Your task to perform on an android device: add a label to a message in the gmail app Image 0: 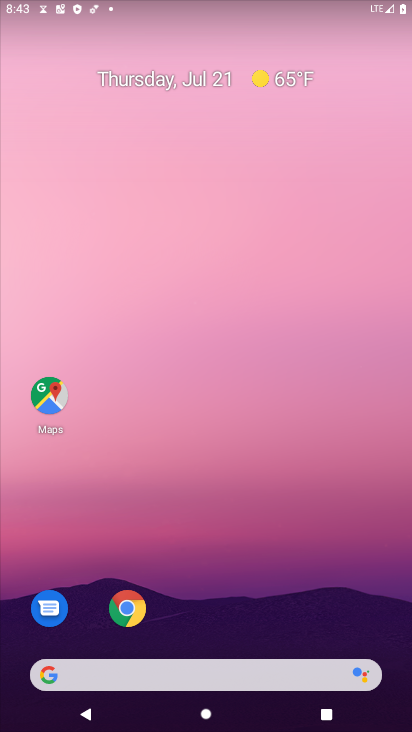
Step 0: drag from (189, 680) to (298, 214)
Your task to perform on an android device: add a label to a message in the gmail app Image 1: 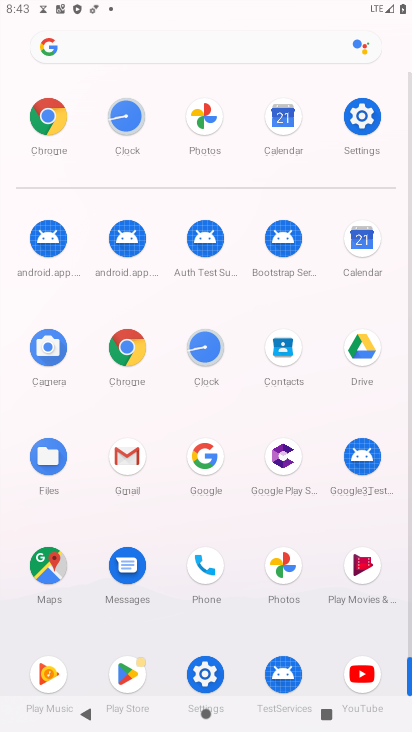
Step 1: click (125, 454)
Your task to perform on an android device: add a label to a message in the gmail app Image 2: 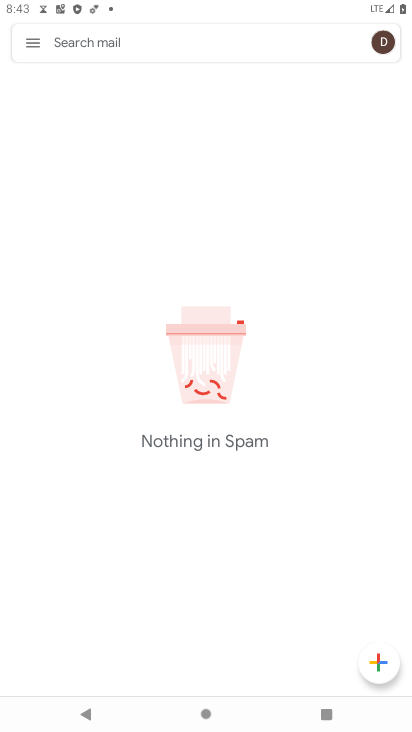
Step 2: click (30, 44)
Your task to perform on an android device: add a label to a message in the gmail app Image 3: 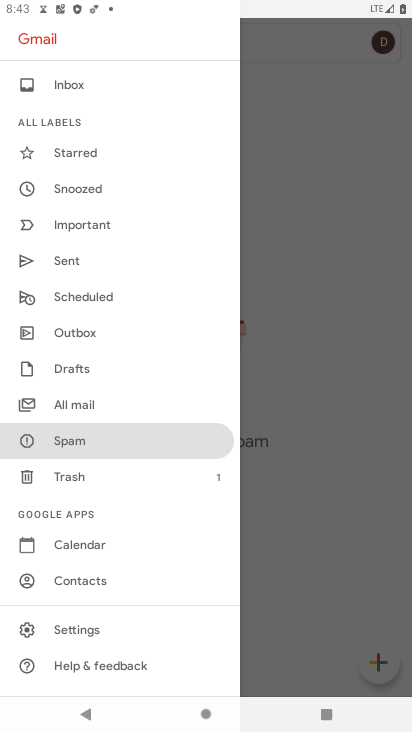
Step 3: click (78, 94)
Your task to perform on an android device: add a label to a message in the gmail app Image 4: 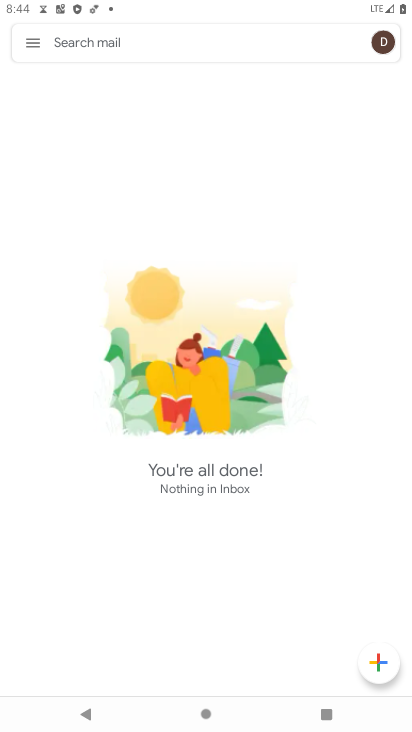
Step 4: click (32, 46)
Your task to perform on an android device: add a label to a message in the gmail app Image 5: 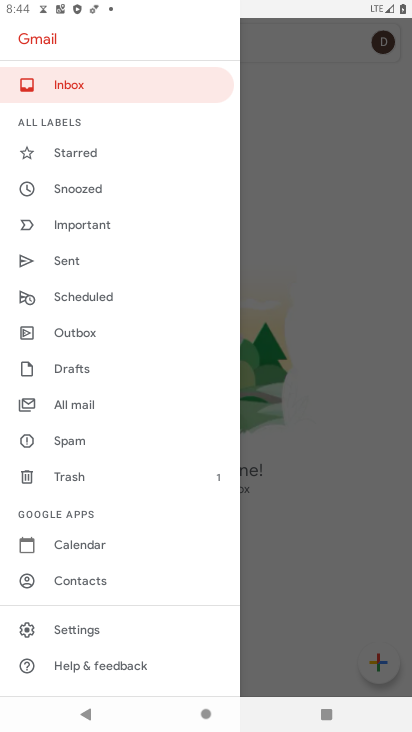
Step 5: click (90, 158)
Your task to perform on an android device: add a label to a message in the gmail app Image 6: 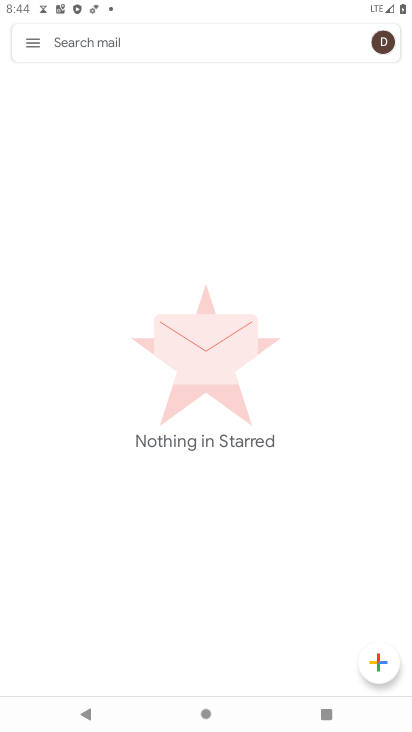
Step 6: click (33, 32)
Your task to perform on an android device: add a label to a message in the gmail app Image 7: 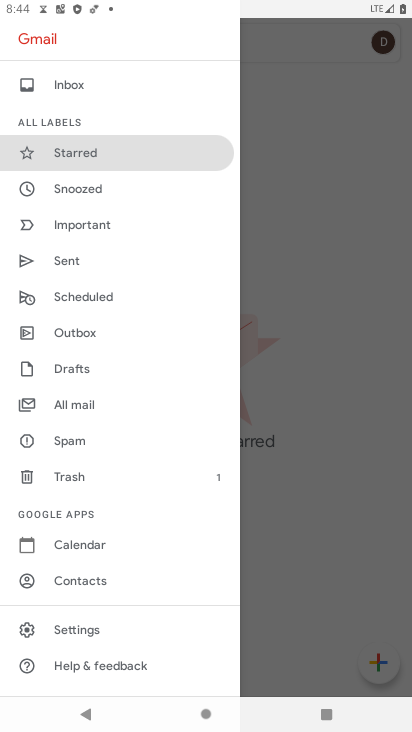
Step 7: click (99, 194)
Your task to perform on an android device: add a label to a message in the gmail app Image 8: 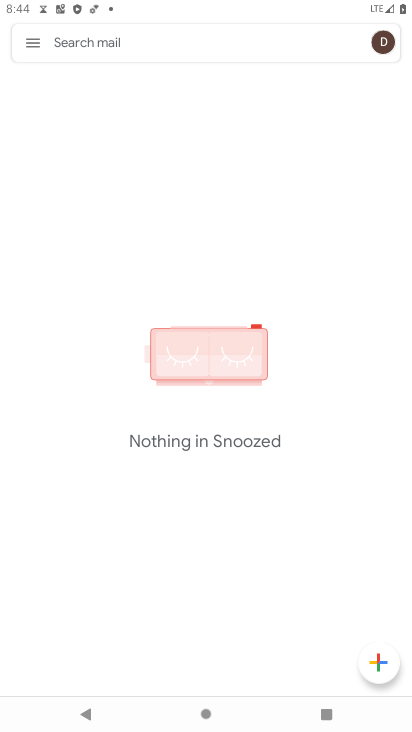
Step 8: click (37, 46)
Your task to perform on an android device: add a label to a message in the gmail app Image 9: 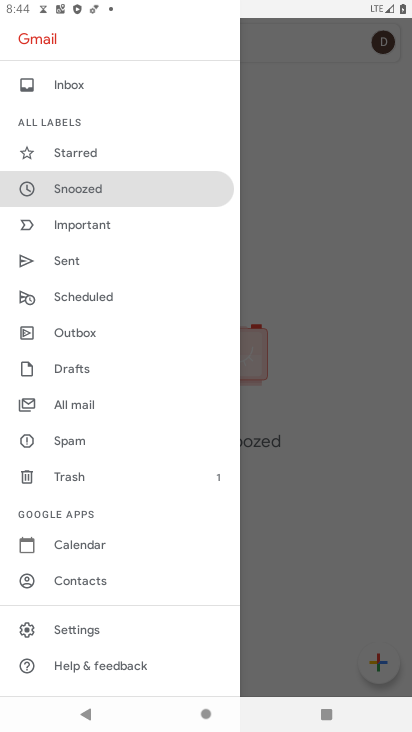
Step 9: click (92, 228)
Your task to perform on an android device: add a label to a message in the gmail app Image 10: 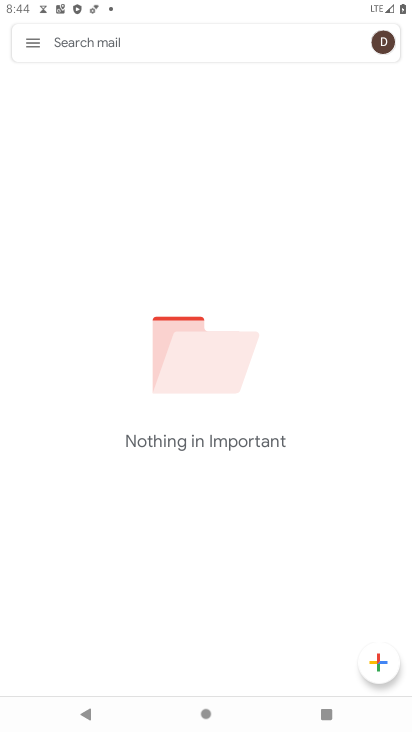
Step 10: click (38, 49)
Your task to perform on an android device: add a label to a message in the gmail app Image 11: 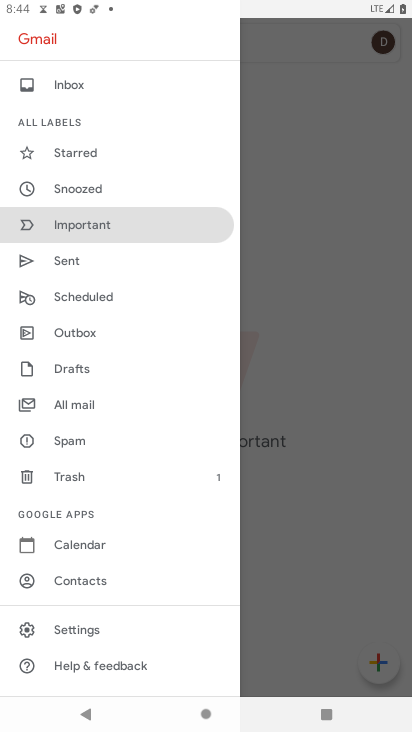
Step 11: click (76, 262)
Your task to perform on an android device: add a label to a message in the gmail app Image 12: 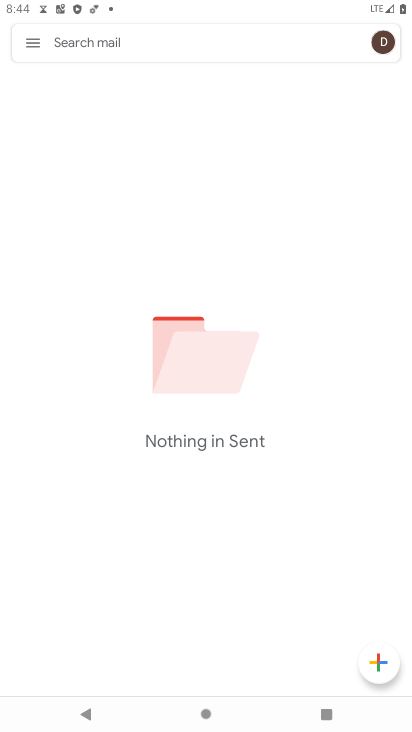
Step 12: click (38, 40)
Your task to perform on an android device: add a label to a message in the gmail app Image 13: 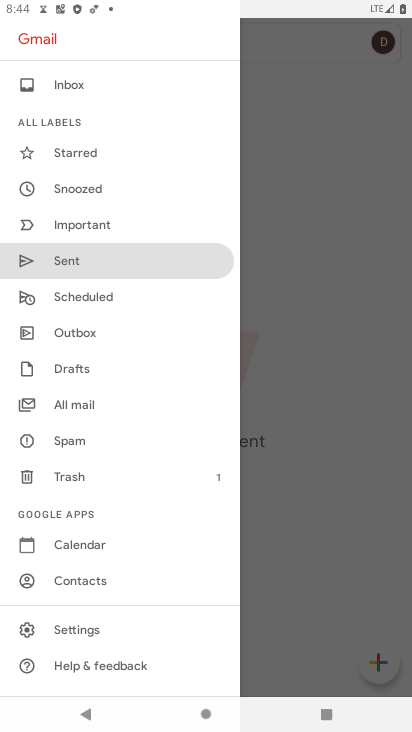
Step 13: click (87, 297)
Your task to perform on an android device: add a label to a message in the gmail app Image 14: 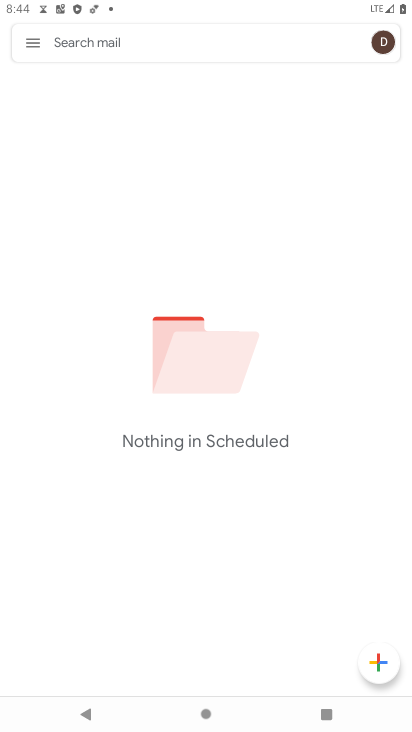
Step 14: click (40, 35)
Your task to perform on an android device: add a label to a message in the gmail app Image 15: 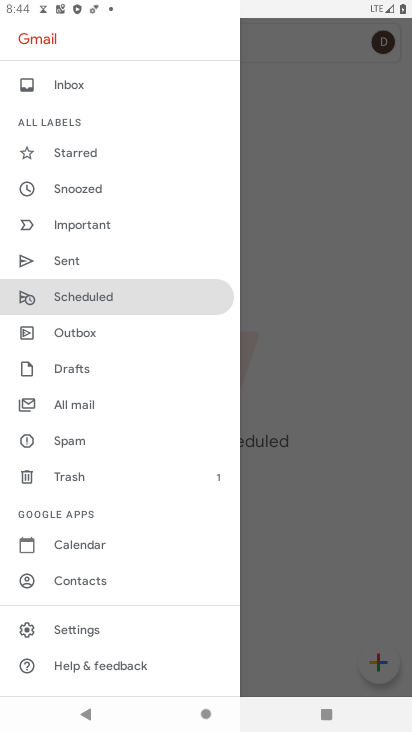
Step 15: click (76, 329)
Your task to perform on an android device: add a label to a message in the gmail app Image 16: 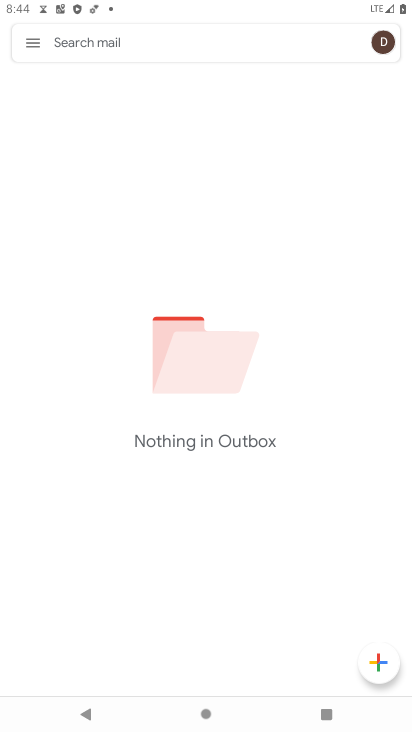
Step 16: click (30, 39)
Your task to perform on an android device: add a label to a message in the gmail app Image 17: 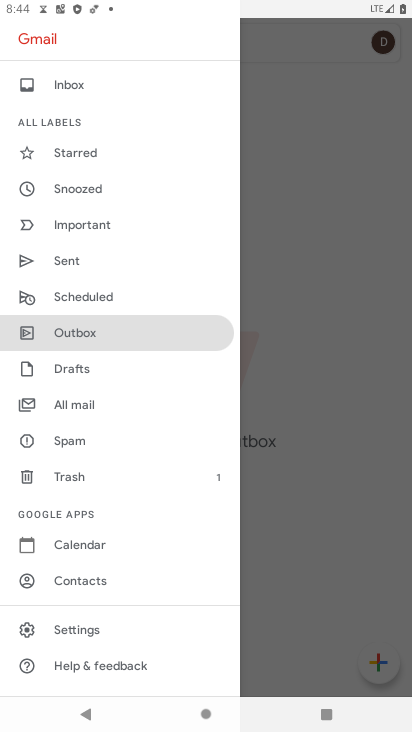
Step 17: click (59, 363)
Your task to perform on an android device: add a label to a message in the gmail app Image 18: 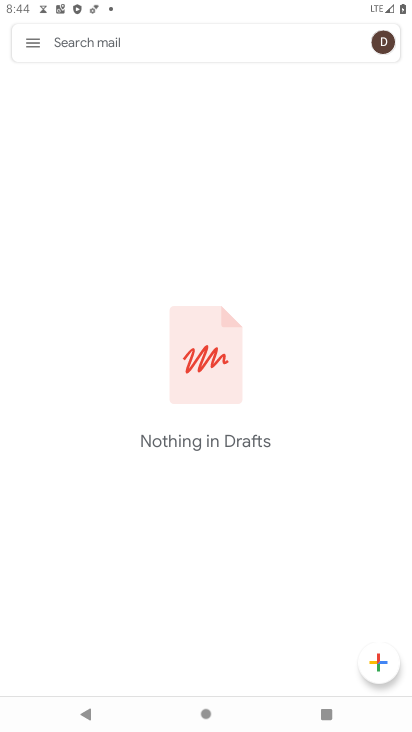
Step 18: click (40, 43)
Your task to perform on an android device: add a label to a message in the gmail app Image 19: 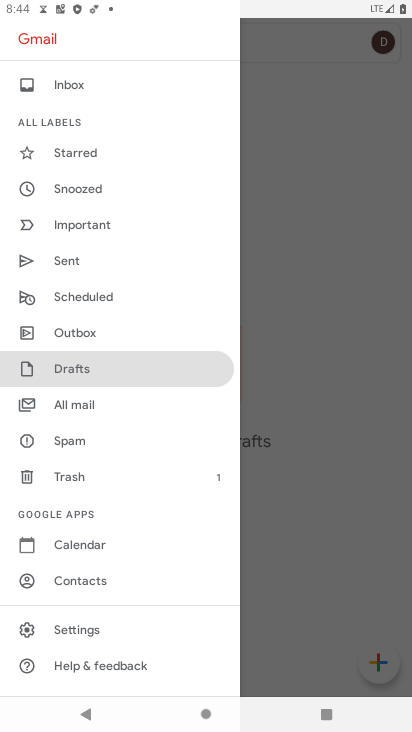
Step 19: click (80, 398)
Your task to perform on an android device: add a label to a message in the gmail app Image 20: 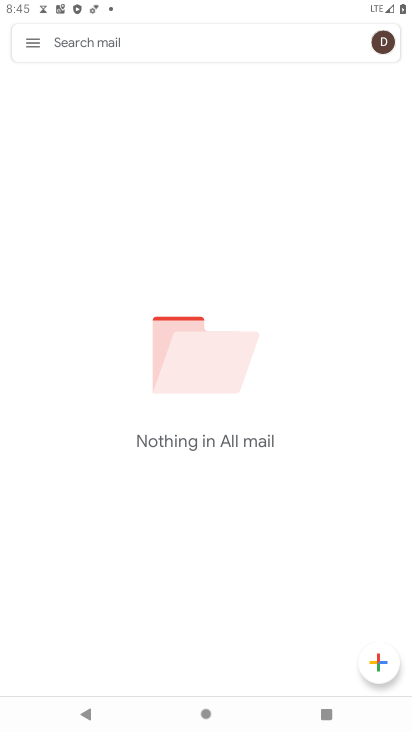
Step 20: click (34, 39)
Your task to perform on an android device: add a label to a message in the gmail app Image 21: 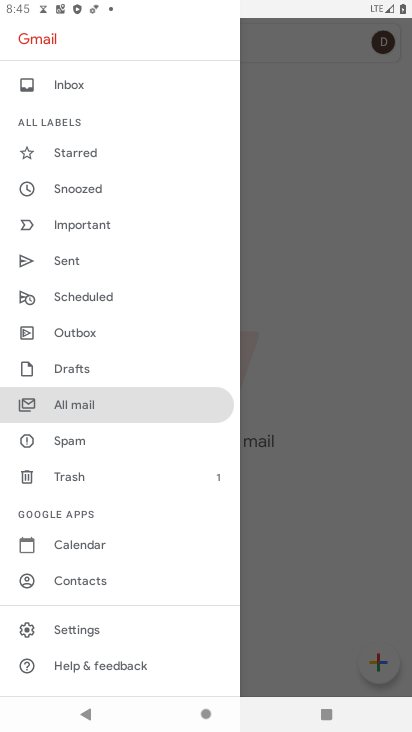
Step 21: click (64, 438)
Your task to perform on an android device: add a label to a message in the gmail app Image 22: 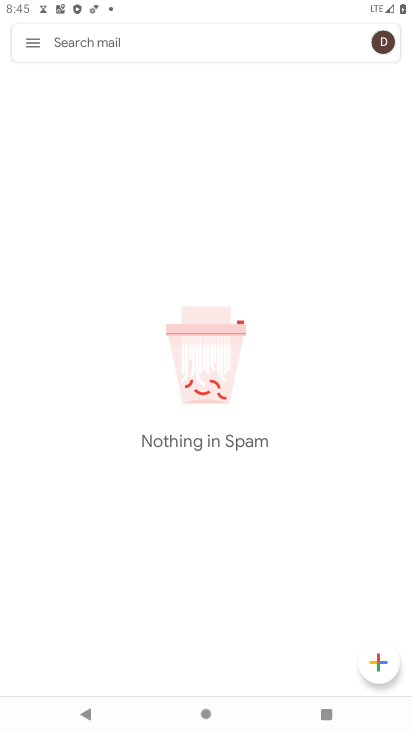
Step 22: task complete